Your task to perform on an android device: turn on notifications settings in the gmail app Image 0: 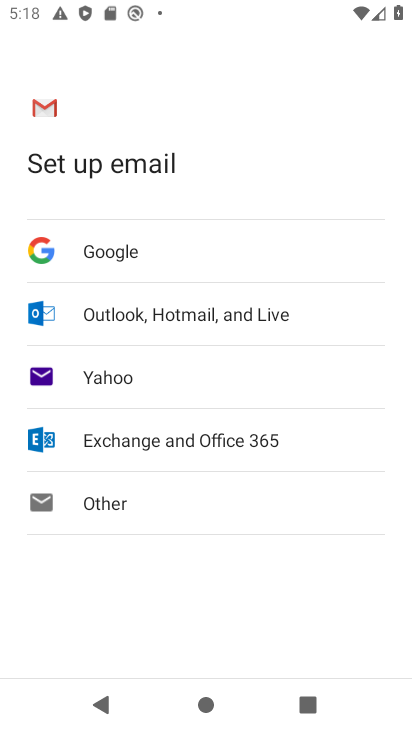
Step 0: press back button
Your task to perform on an android device: turn on notifications settings in the gmail app Image 1: 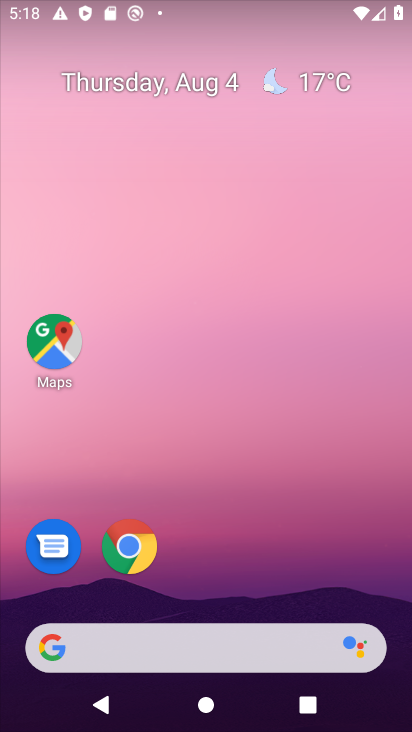
Step 1: drag from (192, 491) to (250, 192)
Your task to perform on an android device: turn on notifications settings in the gmail app Image 2: 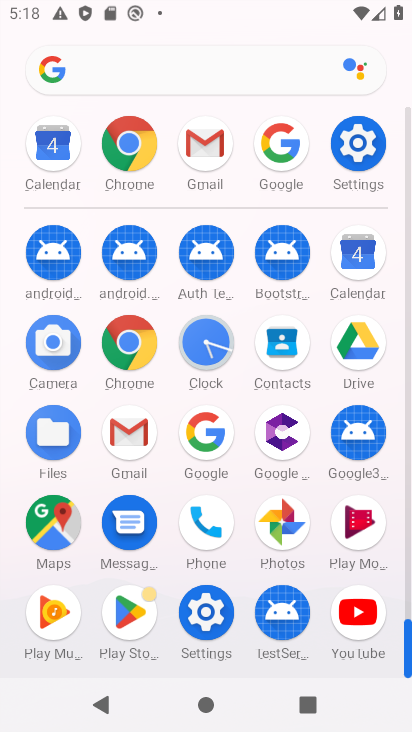
Step 2: click (209, 154)
Your task to perform on an android device: turn on notifications settings in the gmail app Image 3: 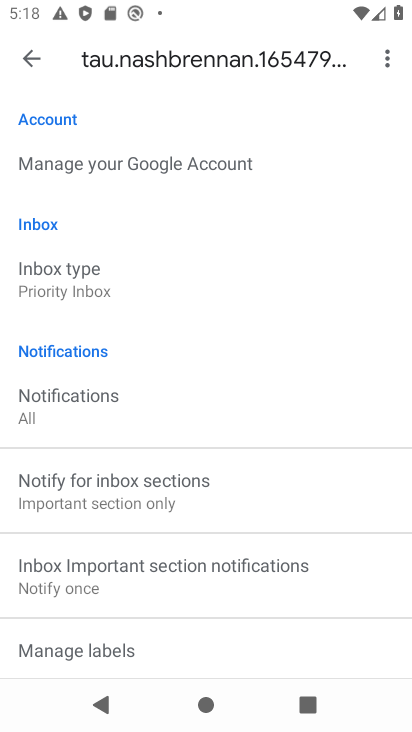
Step 3: click (70, 404)
Your task to perform on an android device: turn on notifications settings in the gmail app Image 4: 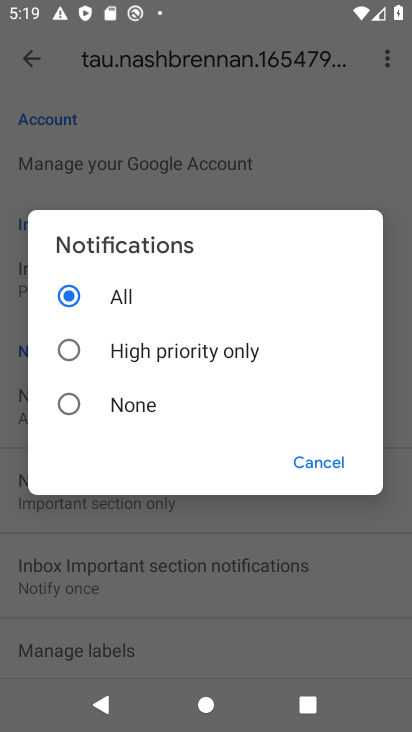
Step 4: click (66, 404)
Your task to perform on an android device: turn on notifications settings in the gmail app Image 5: 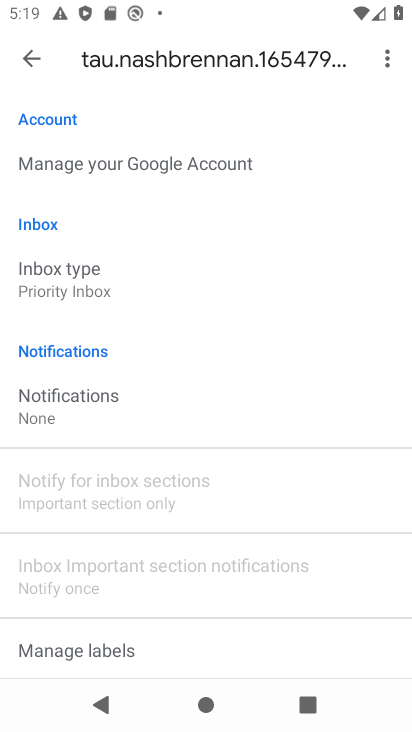
Step 5: task complete